Your task to perform on an android device: empty trash in the gmail app Image 0: 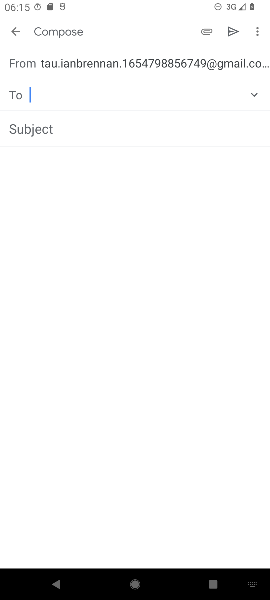
Step 0: press home button
Your task to perform on an android device: empty trash in the gmail app Image 1: 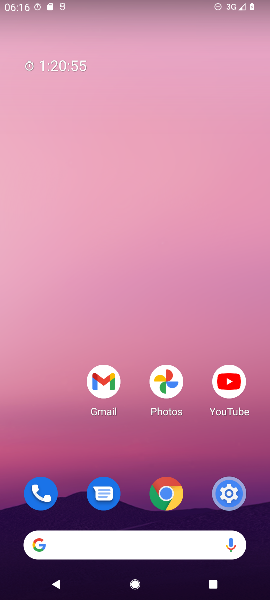
Step 1: drag from (74, 449) to (46, 127)
Your task to perform on an android device: empty trash in the gmail app Image 2: 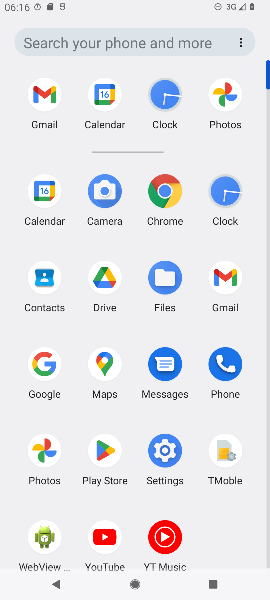
Step 2: click (227, 274)
Your task to perform on an android device: empty trash in the gmail app Image 3: 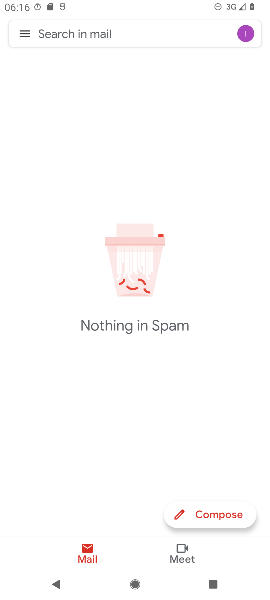
Step 3: click (23, 27)
Your task to perform on an android device: empty trash in the gmail app Image 4: 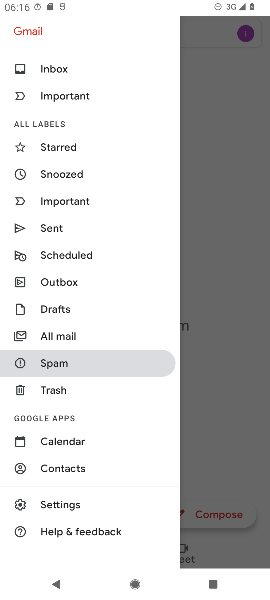
Step 4: click (67, 388)
Your task to perform on an android device: empty trash in the gmail app Image 5: 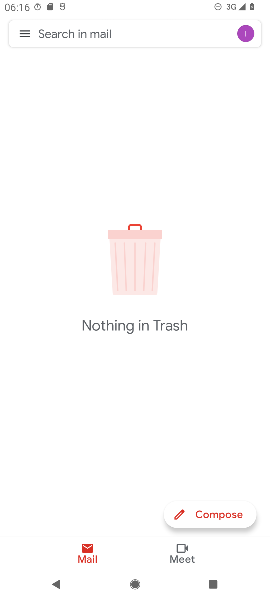
Step 5: task complete